Your task to perform on an android device: turn on data saver in the chrome app Image 0: 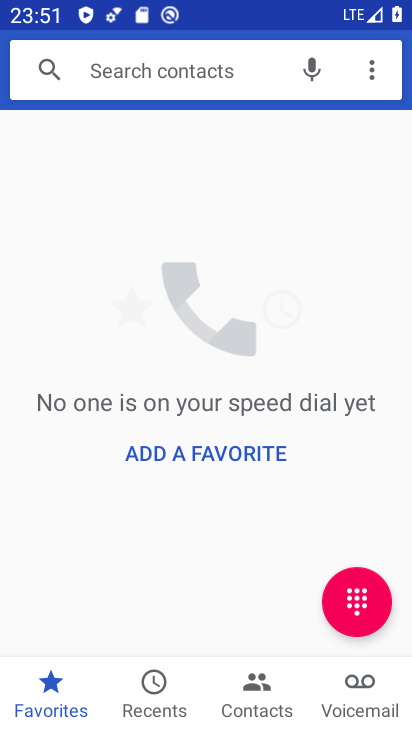
Step 0: press home button
Your task to perform on an android device: turn on data saver in the chrome app Image 1: 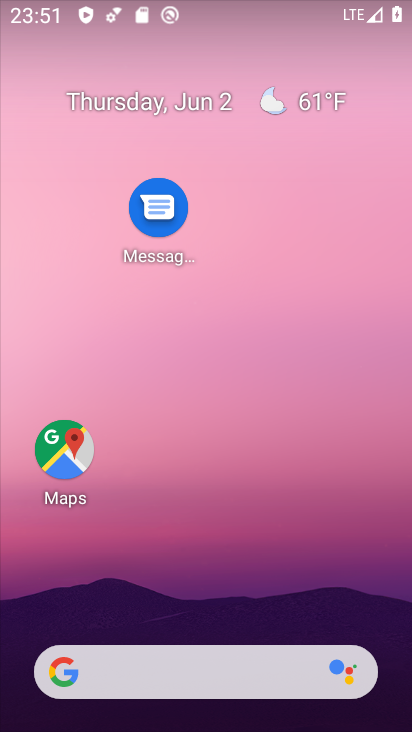
Step 1: drag from (200, 630) to (269, 39)
Your task to perform on an android device: turn on data saver in the chrome app Image 2: 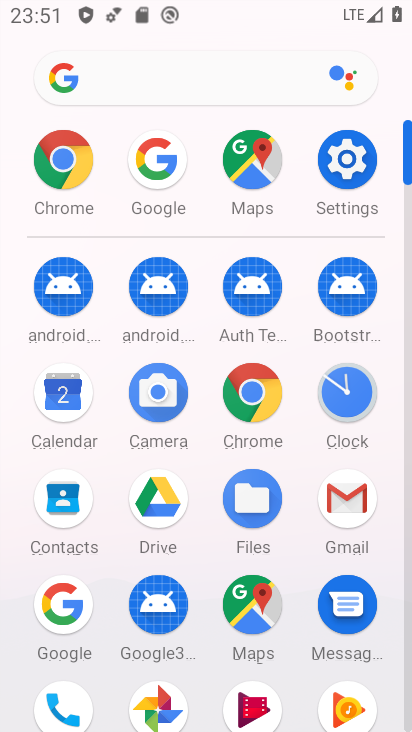
Step 2: click (239, 391)
Your task to perform on an android device: turn on data saver in the chrome app Image 3: 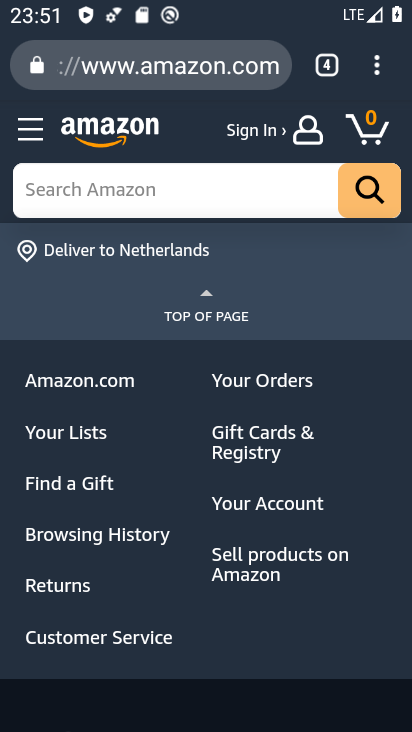
Step 3: drag from (381, 60) to (161, 637)
Your task to perform on an android device: turn on data saver in the chrome app Image 4: 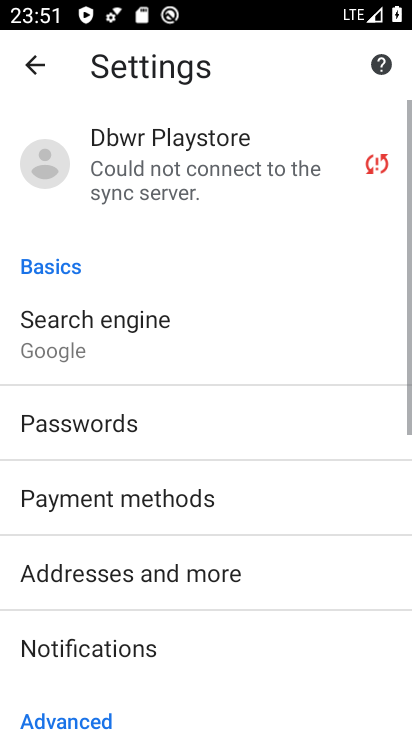
Step 4: drag from (175, 591) to (172, 171)
Your task to perform on an android device: turn on data saver in the chrome app Image 5: 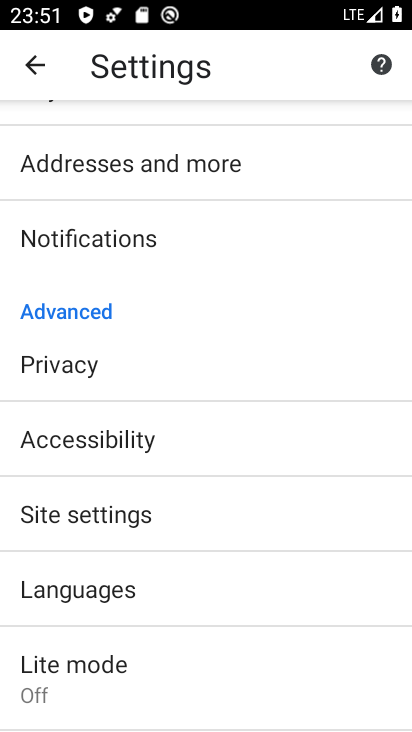
Step 5: click (125, 517)
Your task to perform on an android device: turn on data saver in the chrome app Image 6: 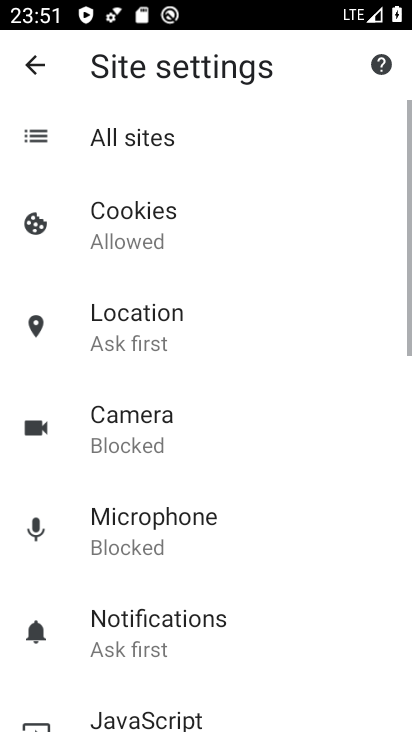
Step 6: click (27, 64)
Your task to perform on an android device: turn on data saver in the chrome app Image 7: 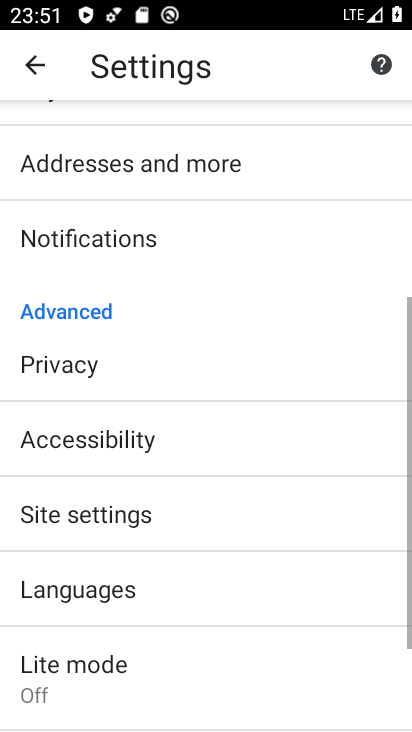
Step 7: click (146, 662)
Your task to perform on an android device: turn on data saver in the chrome app Image 8: 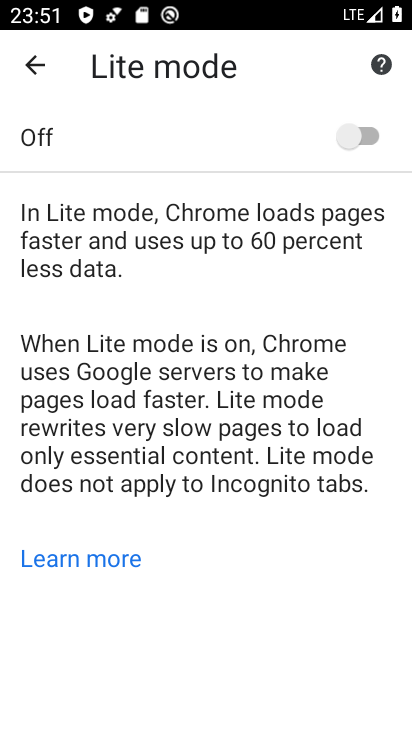
Step 8: click (364, 142)
Your task to perform on an android device: turn on data saver in the chrome app Image 9: 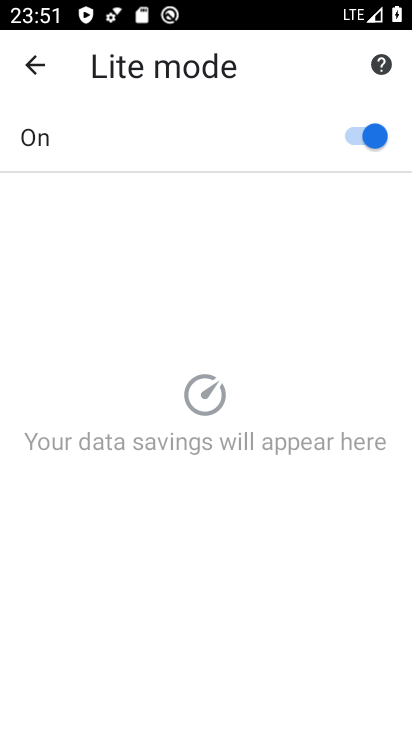
Step 9: task complete